Your task to perform on an android device: Go to network settings Image 0: 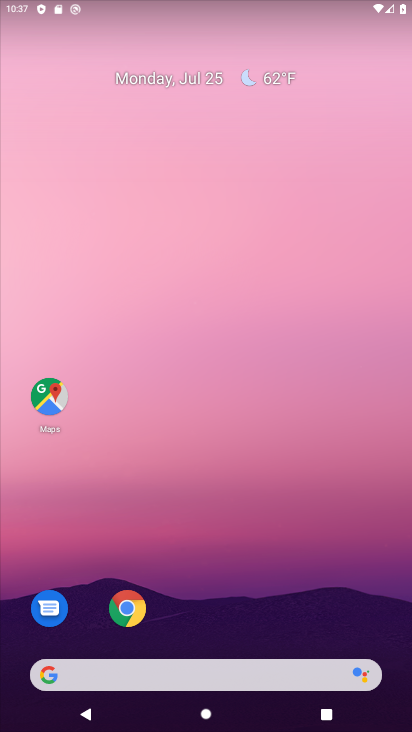
Step 0: drag from (243, 484) to (239, 243)
Your task to perform on an android device: Go to network settings Image 1: 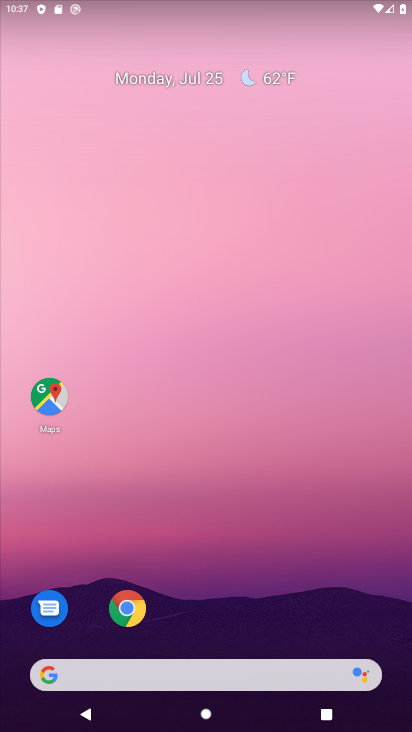
Step 1: drag from (176, 654) to (238, 74)
Your task to perform on an android device: Go to network settings Image 2: 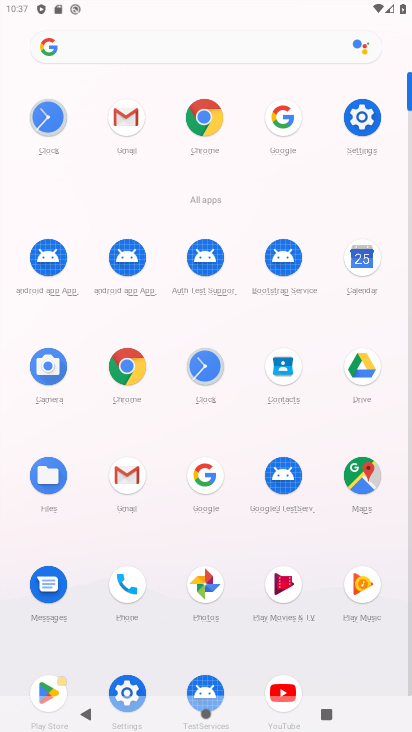
Step 2: click (358, 122)
Your task to perform on an android device: Go to network settings Image 3: 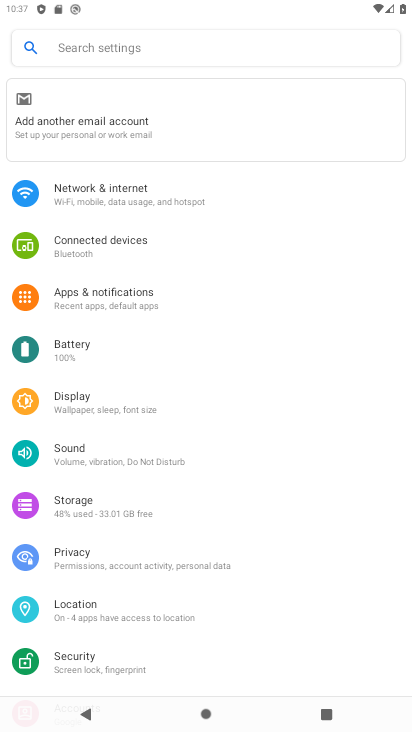
Step 3: click (125, 199)
Your task to perform on an android device: Go to network settings Image 4: 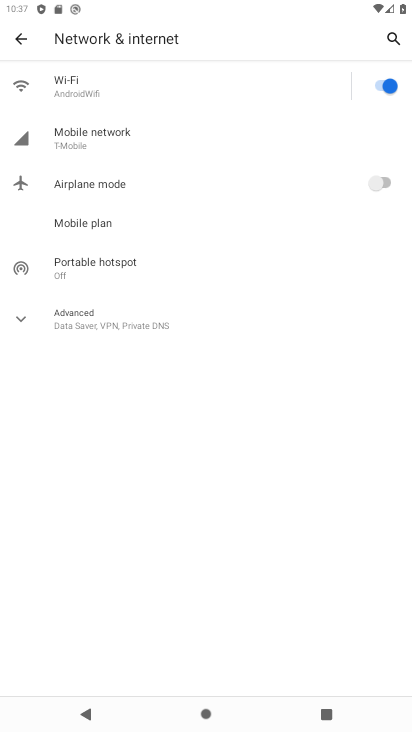
Step 4: click (63, 322)
Your task to perform on an android device: Go to network settings Image 5: 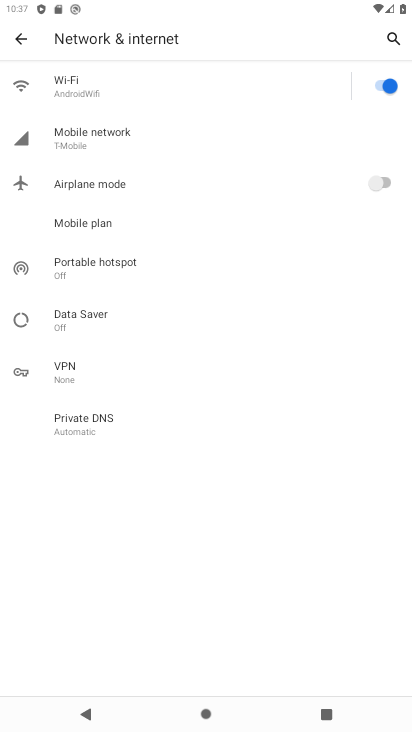
Step 5: click (70, 144)
Your task to perform on an android device: Go to network settings Image 6: 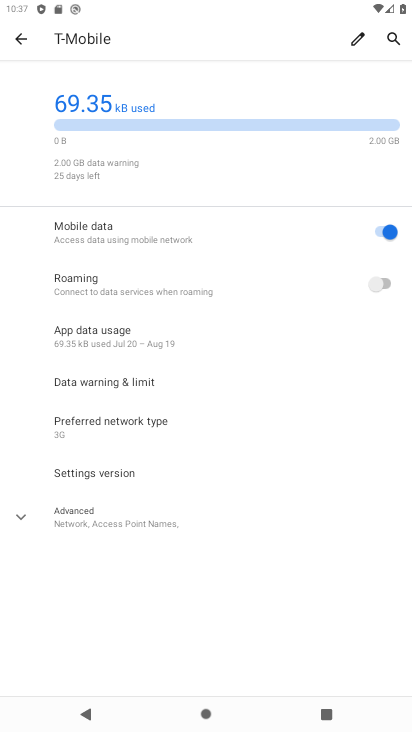
Step 6: click (87, 506)
Your task to perform on an android device: Go to network settings Image 7: 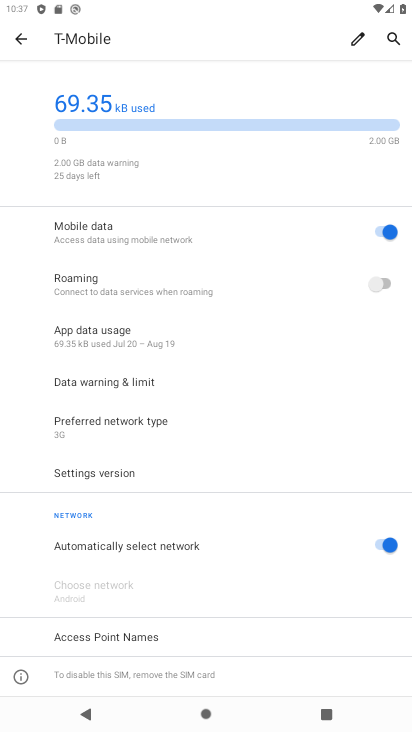
Step 7: task complete